Your task to perform on an android device: Open sound settings Image 0: 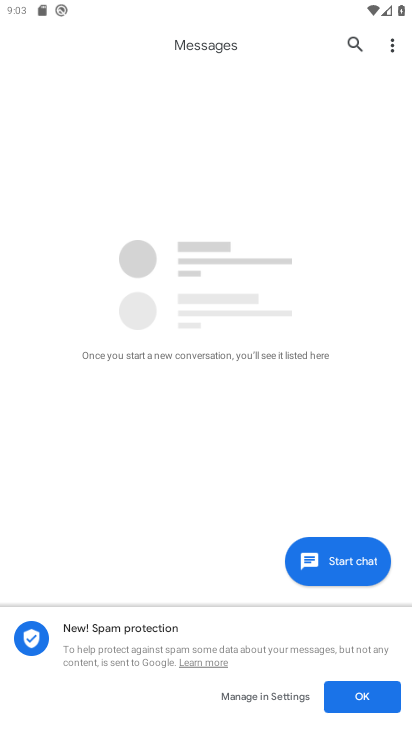
Step 0: drag from (241, 627) to (259, 460)
Your task to perform on an android device: Open sound settings Image 1: 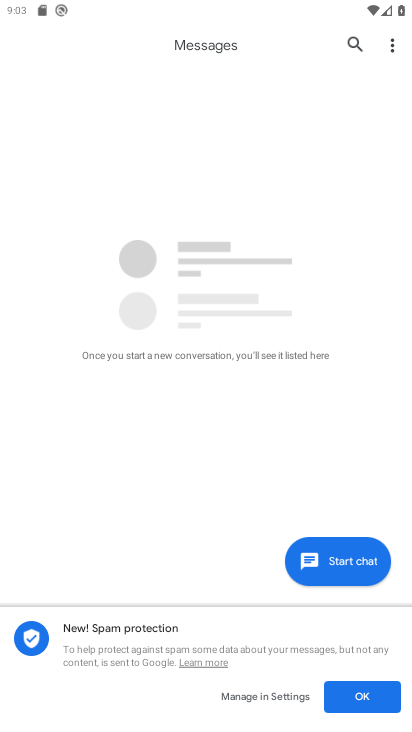
Step 1: press home button
Your task to perform on an android device: Open sound settings Image 2: 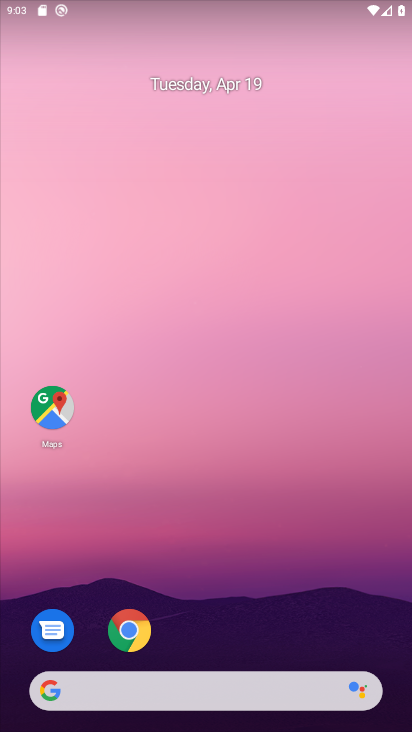
Step 2: drag from (261, 515) to (306, 144)
Your task to perform on an android device: Open sound settings Image 3: 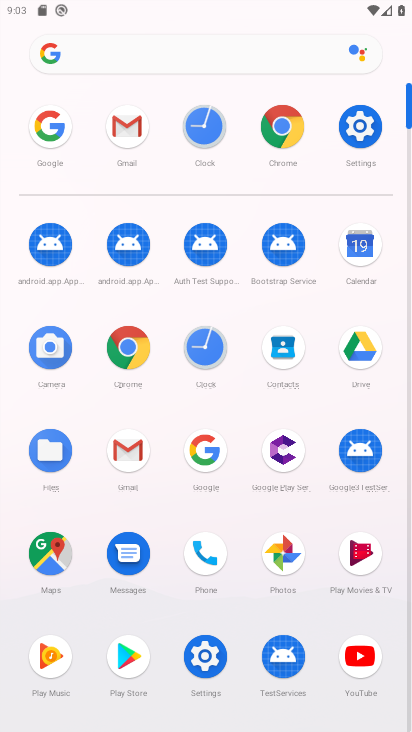
Step 3: click (372, 135)
Your task to perform on an android device: Open sound settings Image 4: 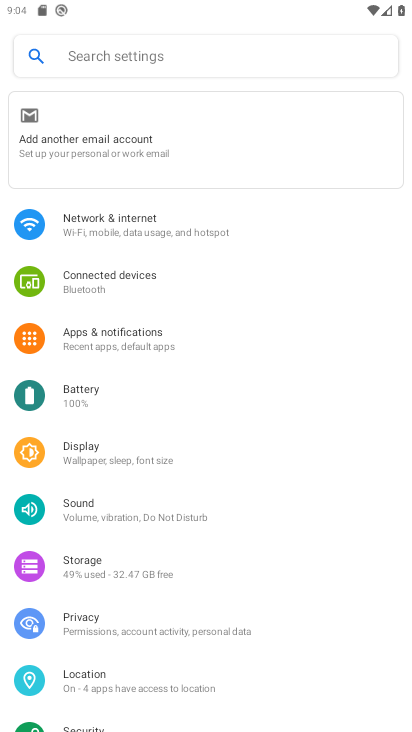
Step 4: click (149, 523)
Your task to perform on an android device: Open sound settings Image 5: 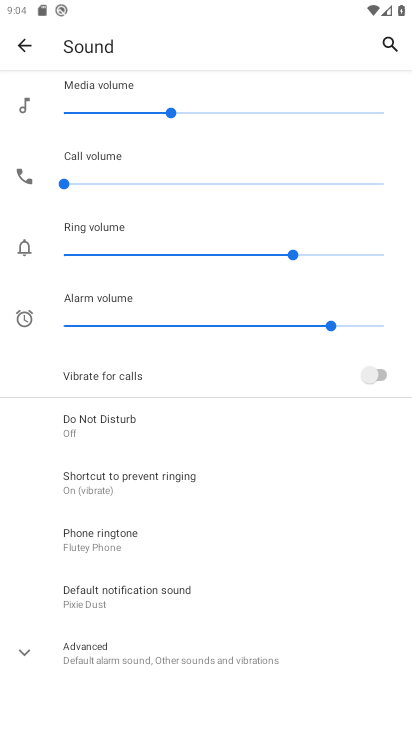
Step 5: task complete